Your task to perform on an android device: see creations saved in the google photos Image 0: 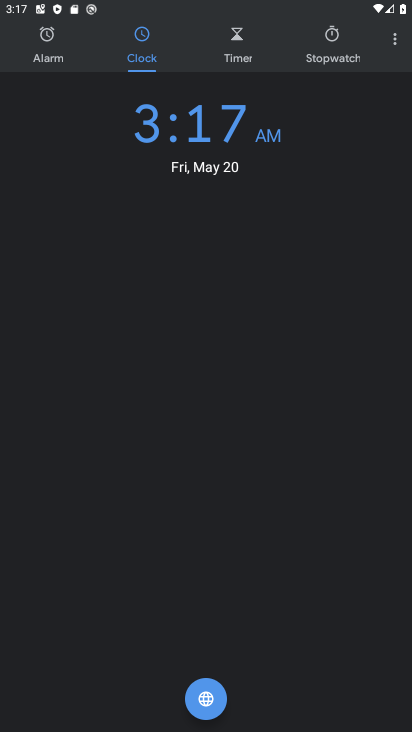
Step 0: press home button
Your task to perform on an android device: see creations saved in the google photos Image 1: 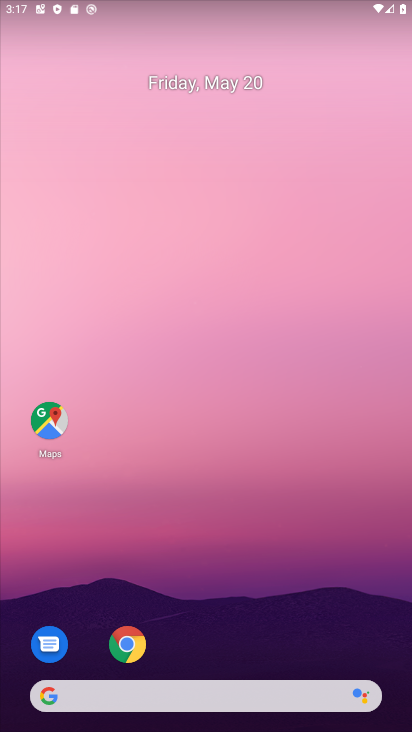
Step 1: drag from (273, 592) to (201, 153)
Your task to perform on an android device: see creations saved in the google photos Image 2: 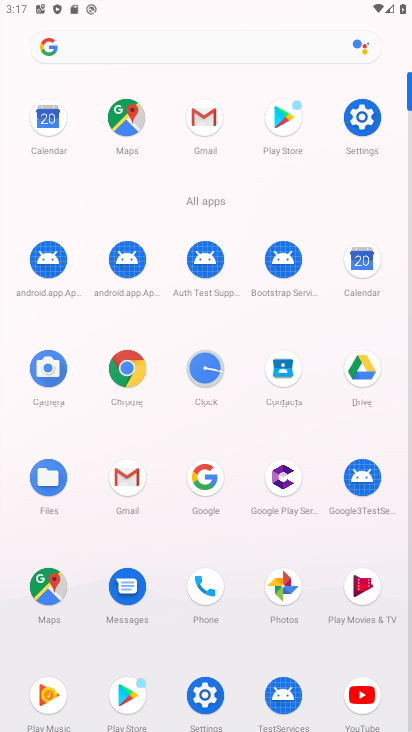
Step 2: click (272, 578)
Your task to perform on an android device: see creations saved in the google photos Image 3: 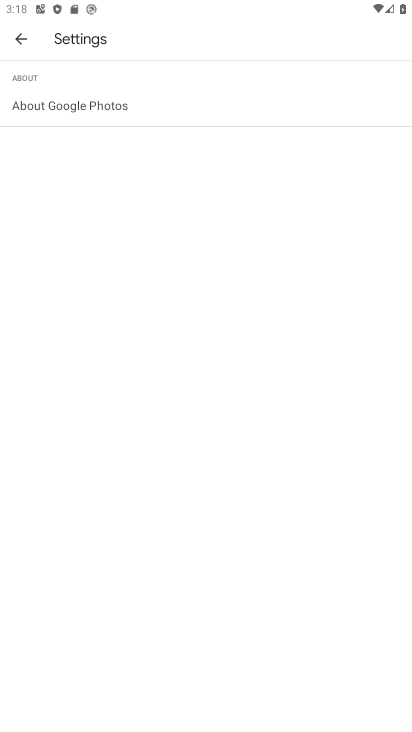
Step 3: click (13, 29)
Your task to perform on an android device: see creations saved in the google photos Image 4: 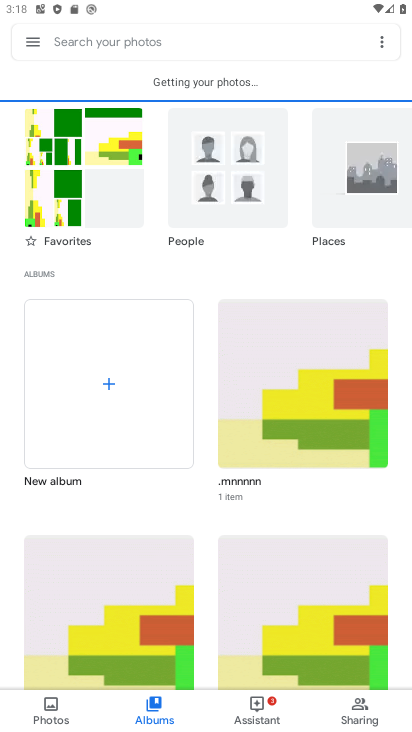
Step 4: click (334, 703)
Your task to perform on an android device: see creations saved in the google photos Image 5: 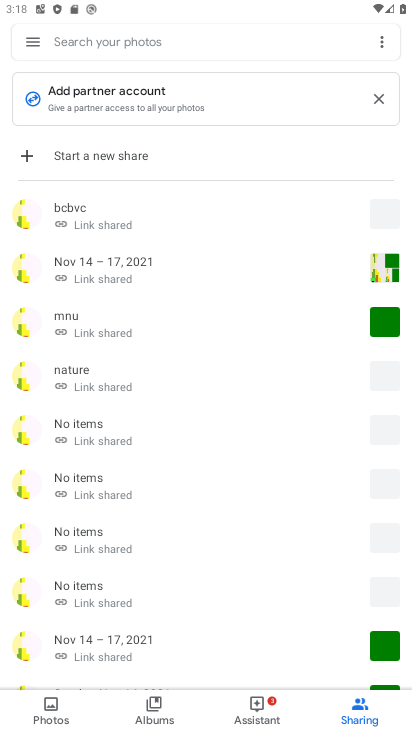
Step 5: task complete